Your task to perform on an android device: Search for the best Nike running shoes on Nike.com Image 0: 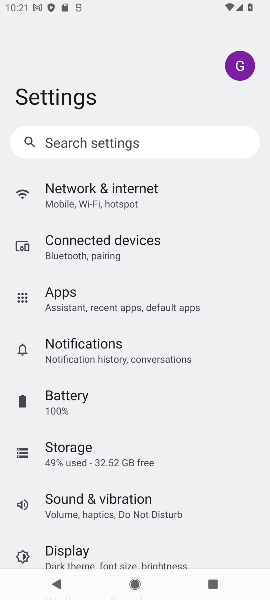
Step 0: press home button
Your task to perform on an android device: Search for the best Nike running shoes on Nike.com Image 1: 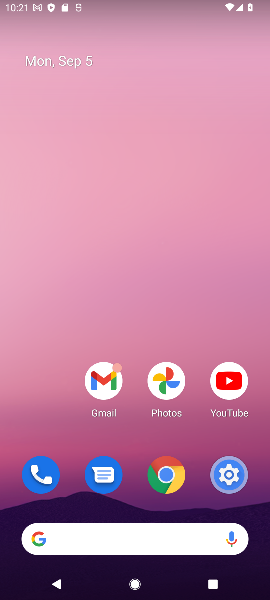
Step 1: click (115, 540)
Your task to perform on an android device: Search for the best Nike running shoes on Nike.com Image 2: 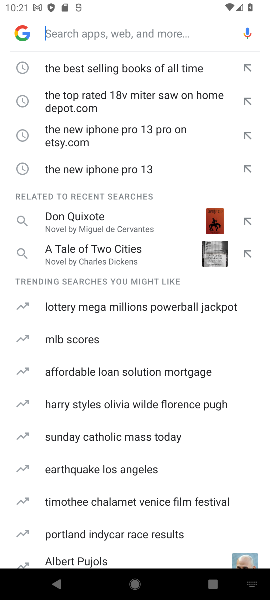
Step 2: type "the best Nike running shoes on Nike.com"
Your task to perform on an android device: Search for the best Nike running shoes on Nike.com Image 3: 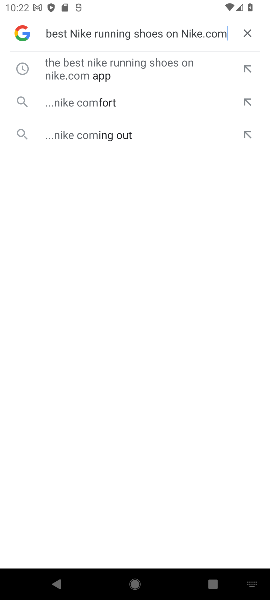
Step 3: click (140, 64)
Your task to perform on an android device: Search for the best Nike running shoes on Nike.com Image 4: 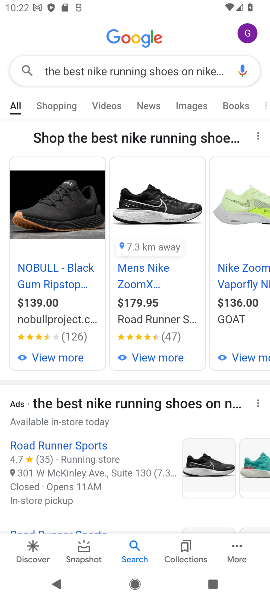
Step 4: task complete